Your task to perform on an android device: Show me popular videos on Youtube Image 0: 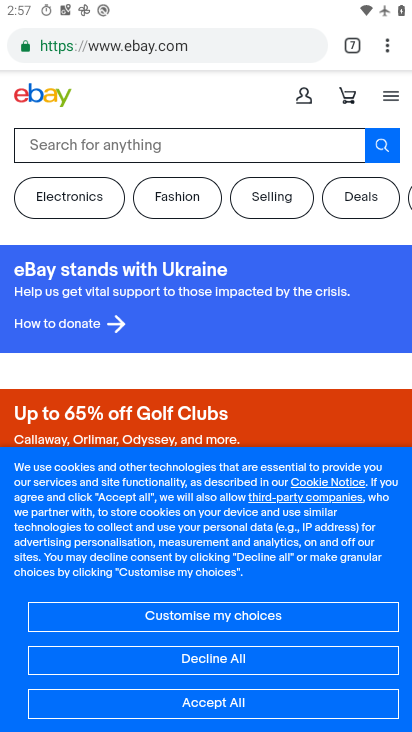
Step 0: press home button
Your task to perform on an android device: Show me popular videos on Youtube Image 1: 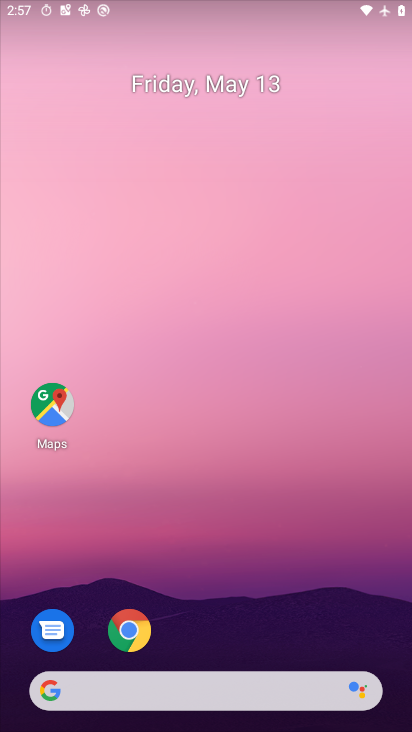
Step 1: drag from (337, 464) to (339, 211)
Your task to perform on an android device: Show me popular videos on Youtube Image 2: 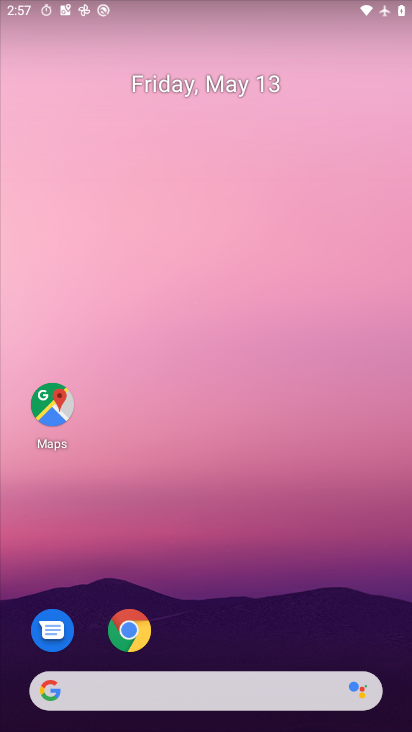
Step 2: drag from (287, 540) to (325, 9)
Your task to perform on an android device: Show me popular videos on Youtube Image 3: 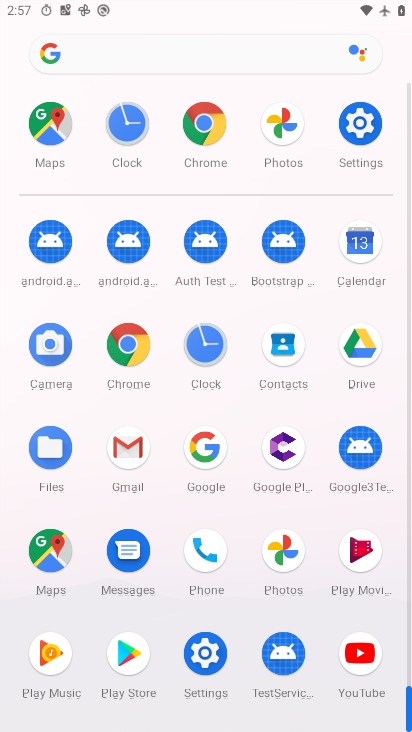
Step 3: click (358, 660)
Your task to perform on an android device: Show me popular videos on Youtube Image 4: 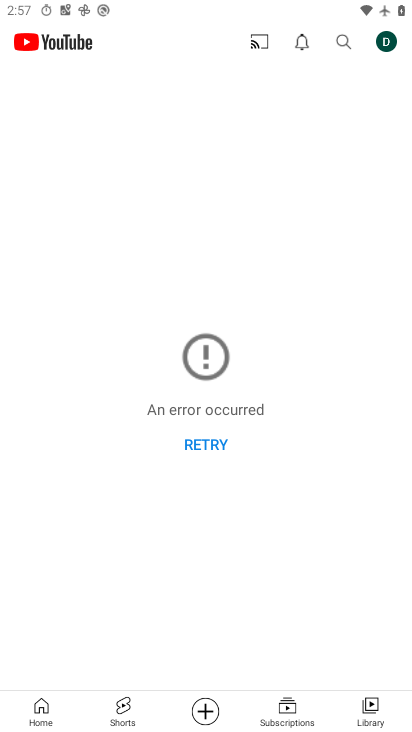
Step 4: click (217, 442)
Your task to perform on an android device: Show me popular videos on Youtube Image 5: 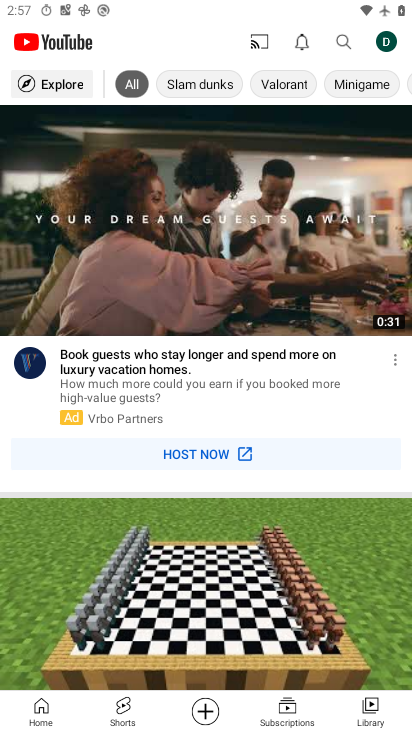
Step 5: click (39, 710)
Your task to perform on an android device: Show me popular videos on Youtube Image 6: 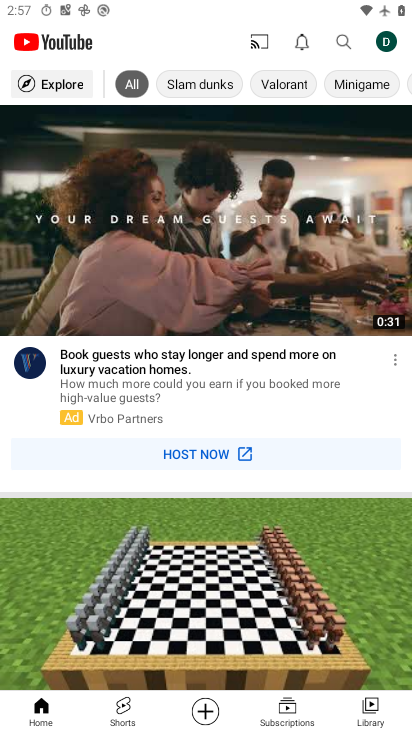
Step 6: click (78, 86)
Your task to perform on an android device: Show me popular videos on Youtube Image 7: 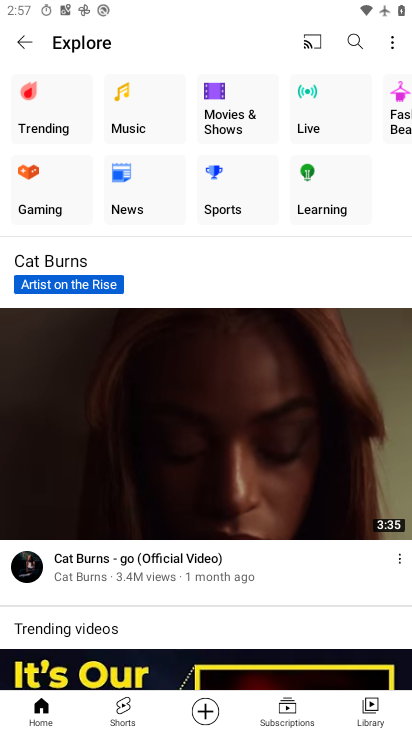
Step 7: click (34, 105)
Your task to perform on an android device: Show me popular videos on Youtube Image 8: 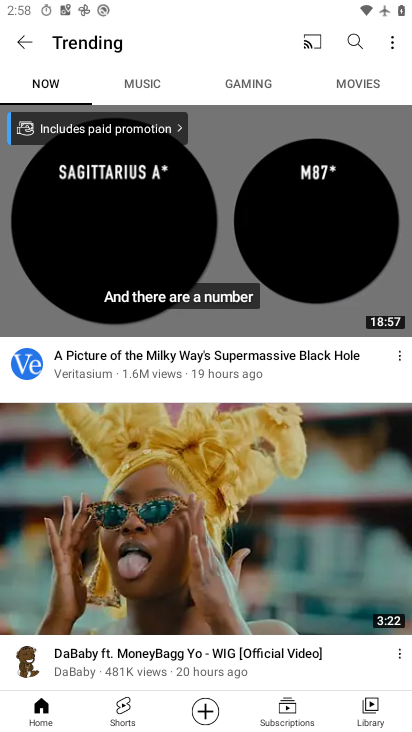
Step 8: task complete